Your task to perform on an android device: turn on showing notifications on the lock screen Image 0: 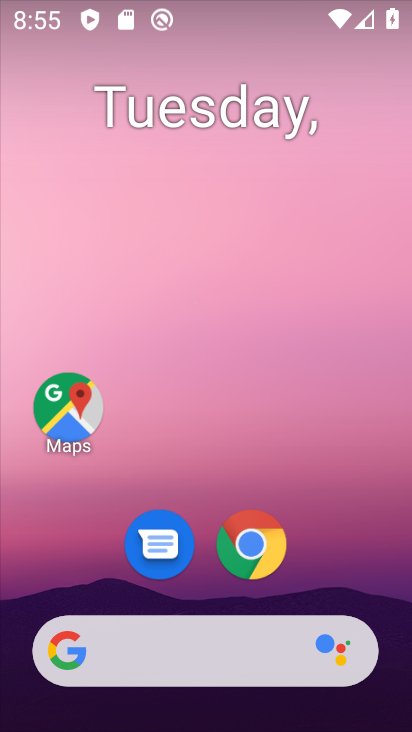
Step 0: drag from (201, 594) to (198, 6)
Your task to perform on an android device: turn on showing notifications on the lock screen Image 1: 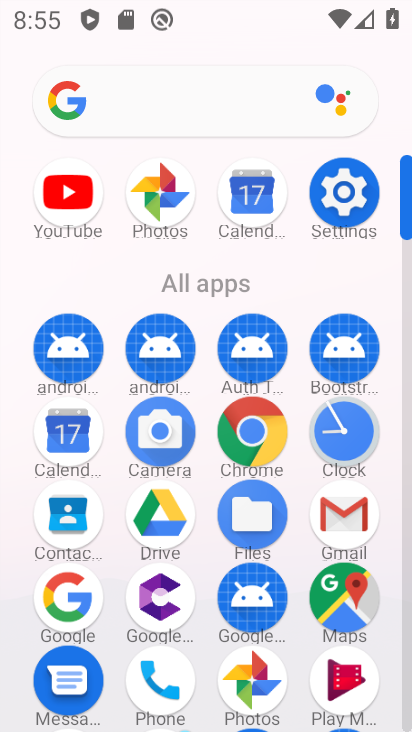
Step 1: click (339, 186)
Your task to perform on an android device: turn on showing notifications on the lock screen Image 2: 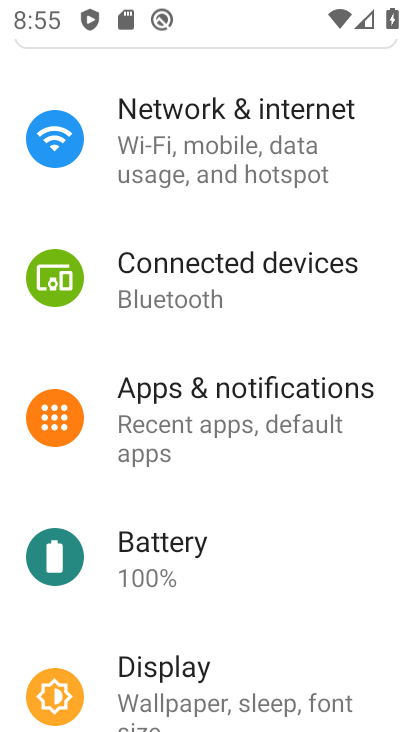
Step 2: click (280, 414)
Your task to perform on an android device: turn on showing notifications on the lock screen Image 3: 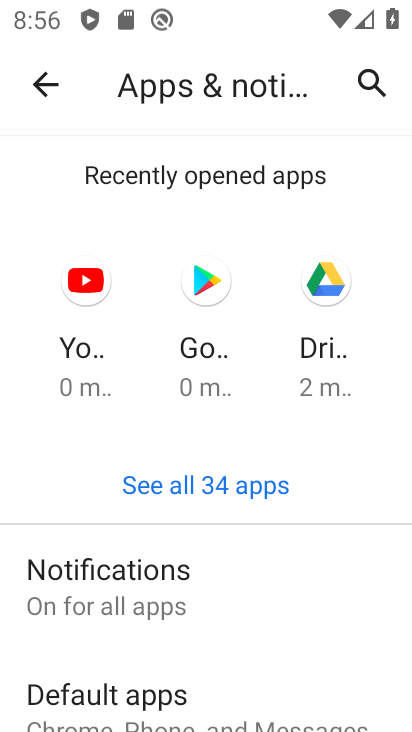
Step 3: click (177, 599)
Your task to perform on an android device: turn on showing notifications on the lock screen Image 4: 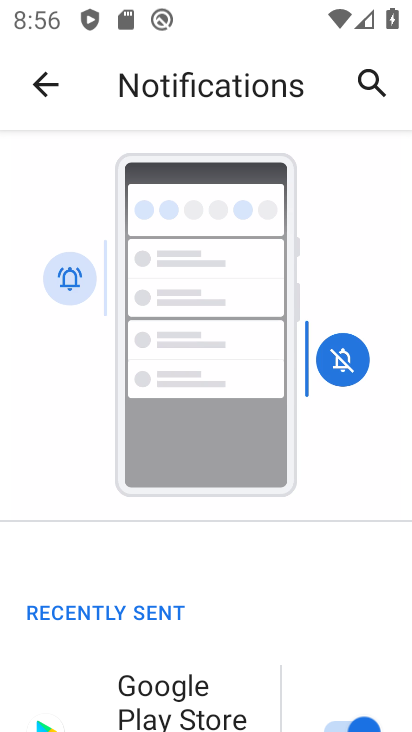
Step 4: drag from (256, 616) to (206, 15)
Your task to perform on an android device: turn on showing notifications on the lock screen Image 5: 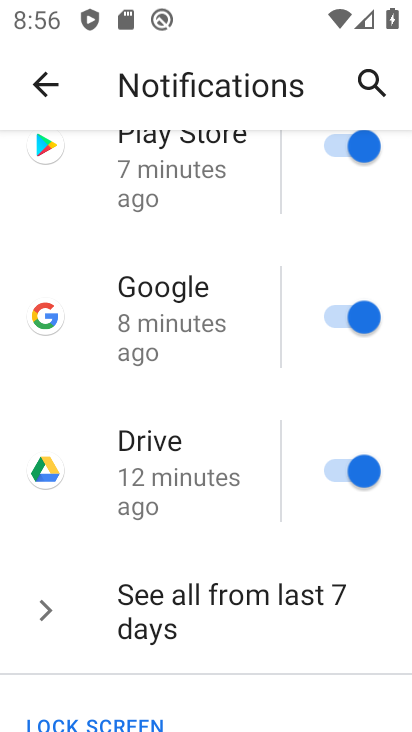
Step 5: drag from (249, 613) to (223, 155)
Your task to perform on an android device: turn on showing notifications on the lock screen Image 6: 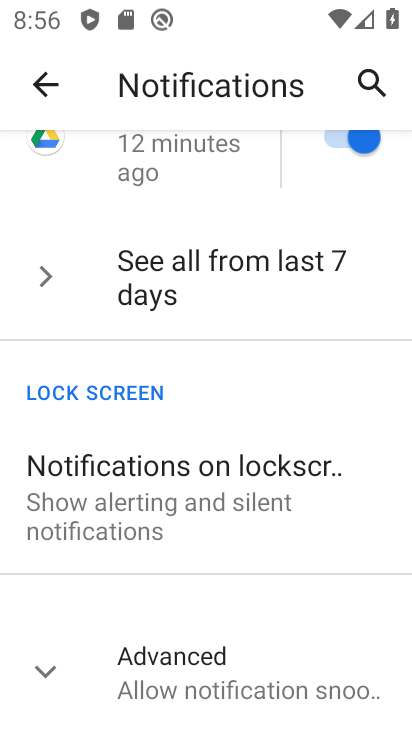
Step 6: click (171, 457)
Your task to perform on an android device: turn on showing notifications on the lock screen Image 7: 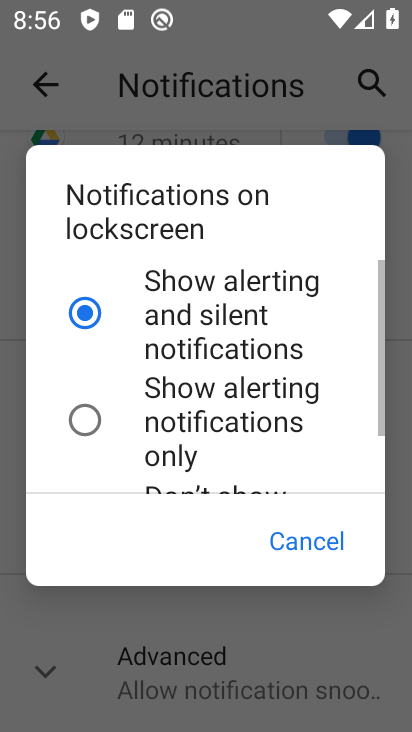
Step 7: click (115, 327)
Your task to perform on an android device: turn on showing notifications on the lock screen Image 8: 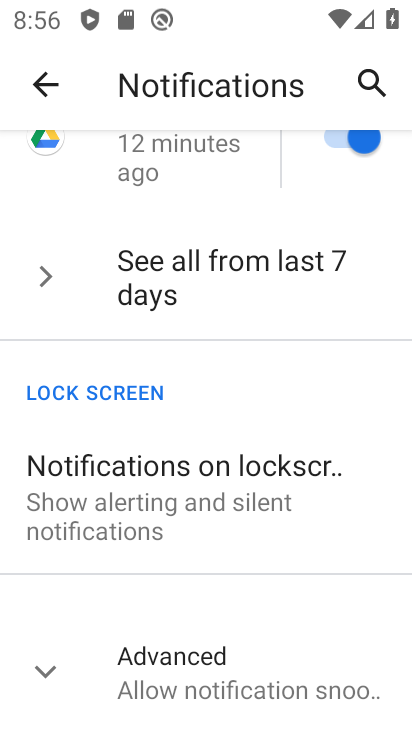
Step 8: task complete